Your task to perform on an android device: turn off airplane mode Image 0: 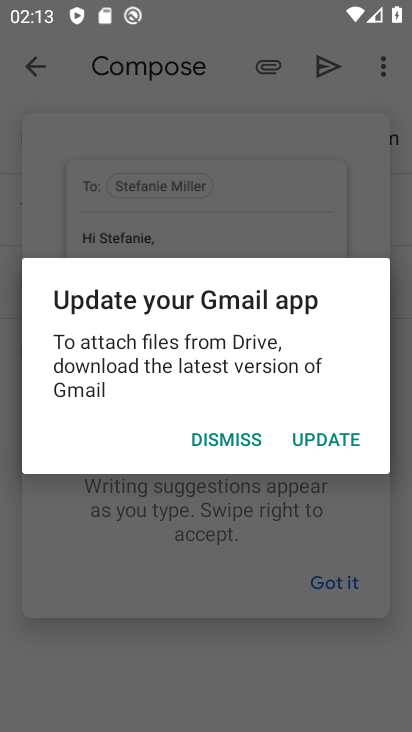
Step 0: click (344, 435)
Your task to perform on an android device: turn off airplane mode Image 1: 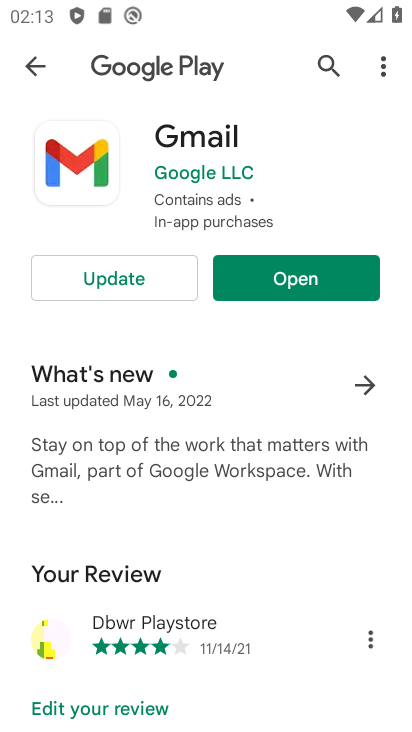
Step 1: press home button
Your task to perform on an android device: turn off airplane mode Image 2: 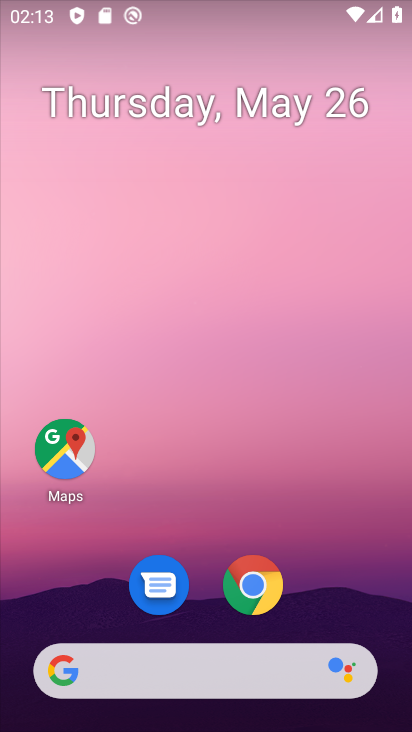
Step 2: drag from (290, 444) to (267, 60)
Your task to perform on an android device: turn off airplane mode Image 3: 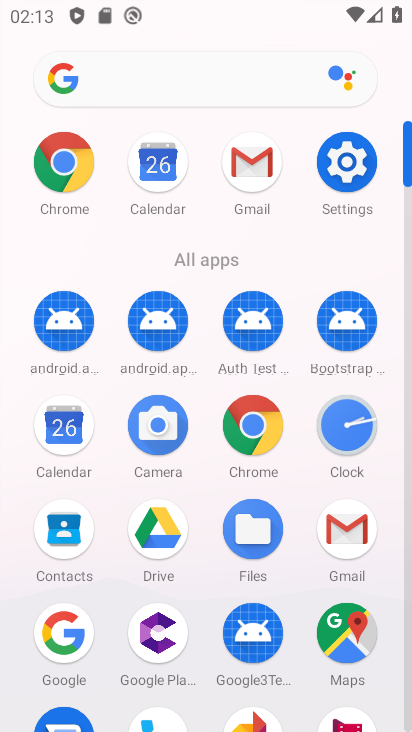
Step 3: click (338, 152)
Your task to perform on an android device: turn off airplane mode Image 4: 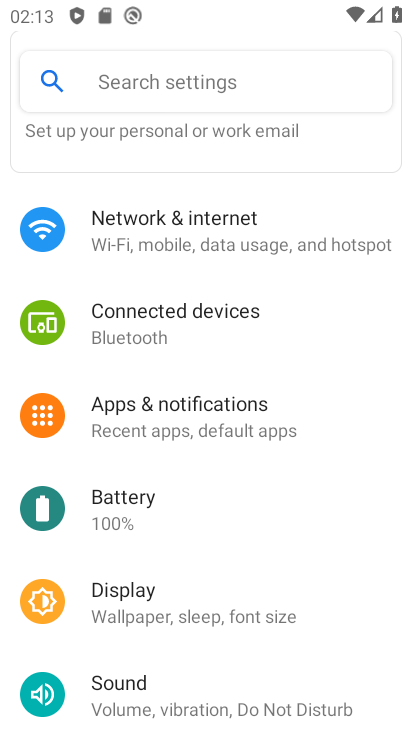
Step 4: click (207, 229)
Your task to perform on an android device: turn off airplane mode Image 5: 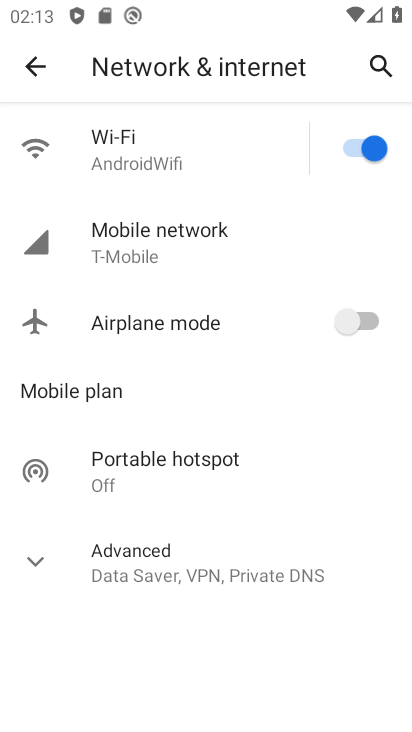
Step 5: task complete